Your task to perform on an android device: install app "Paramount+ | Peak Streaming" Image 0: 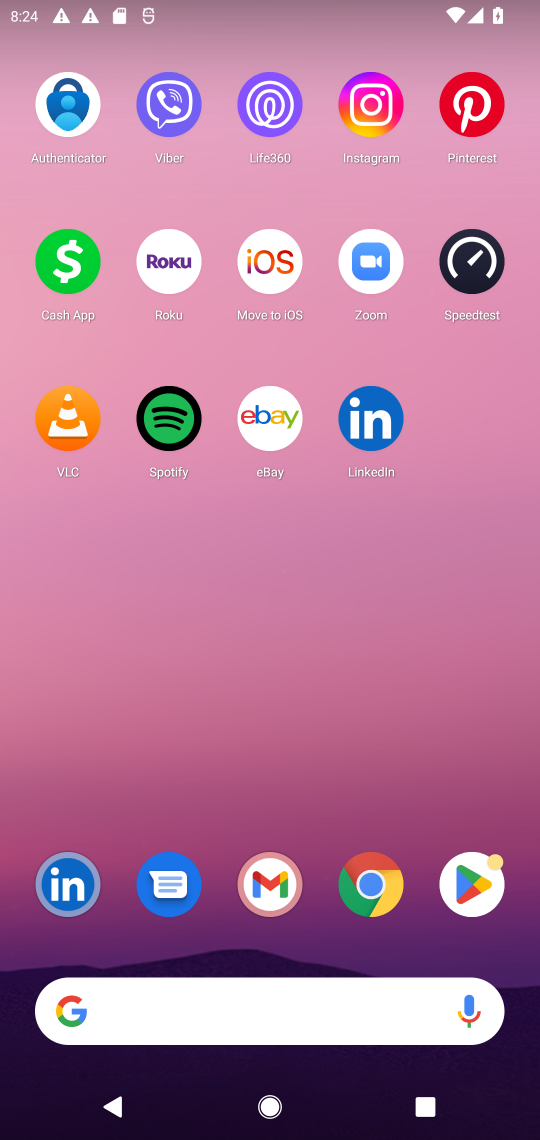
Step 0: press home button
Your task to perform on an android device: install app "Paramount+ | Peak Streaming" Image 1: 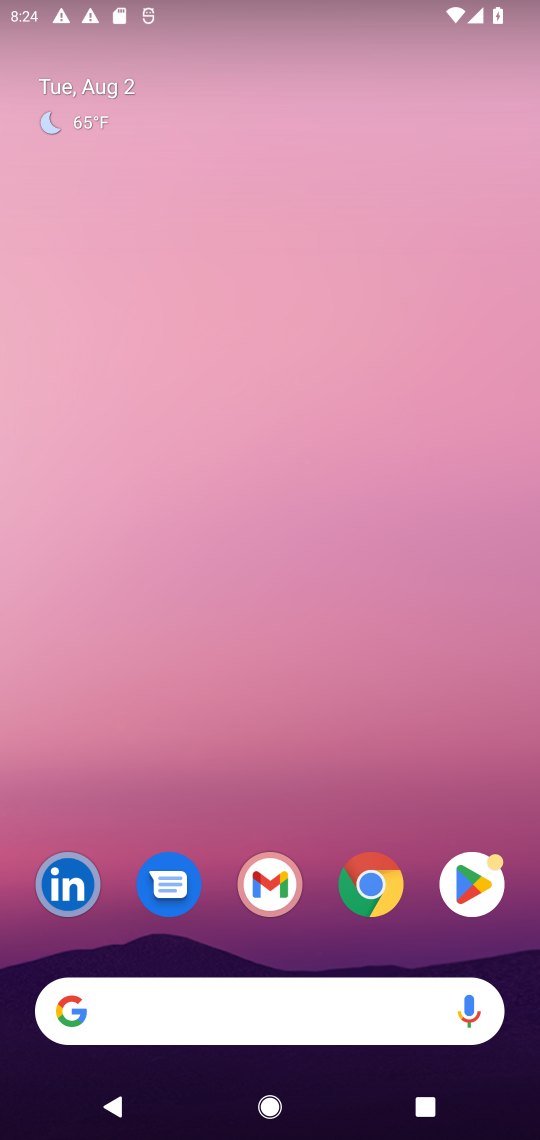
Step 1: click (462, 894)
Your task to perform on an android device: install app "Paramount+ | Peak Streaming" Image 2: 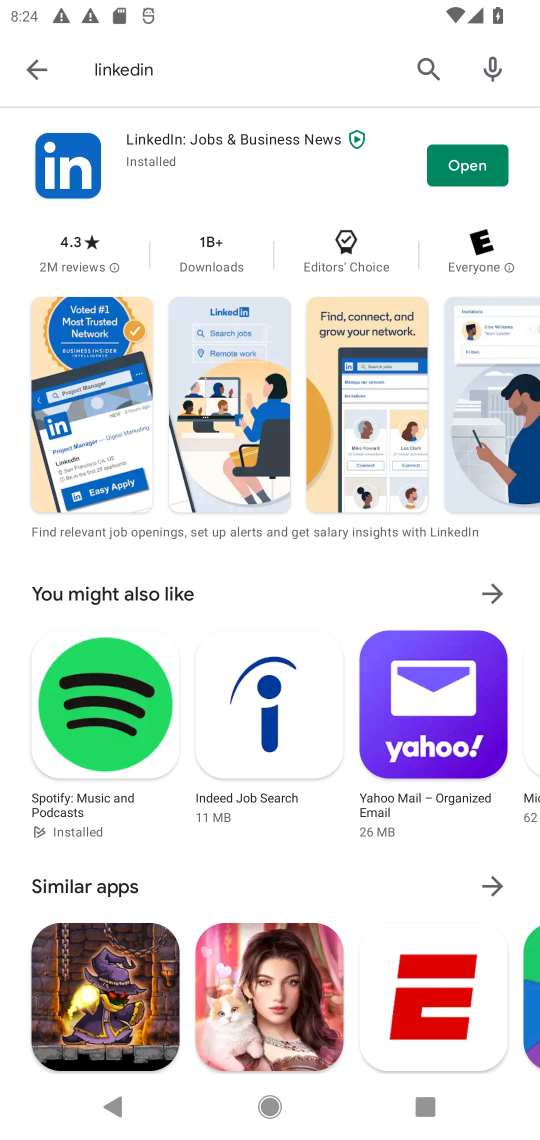
Step 2: click (435, 65)
Your task to perform on an android device: install app "Paramount+ | Peak Streaming" Image 3: 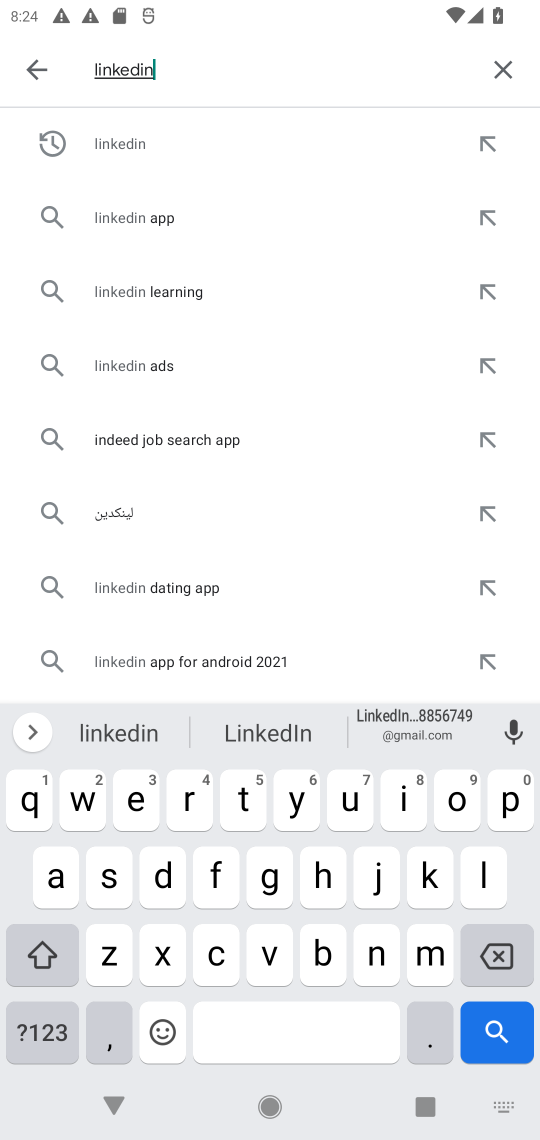
Step 3: click (505, 72)
Your task to perform on an android device: install app "Paramount+ | Peak Streaming" Image 4: 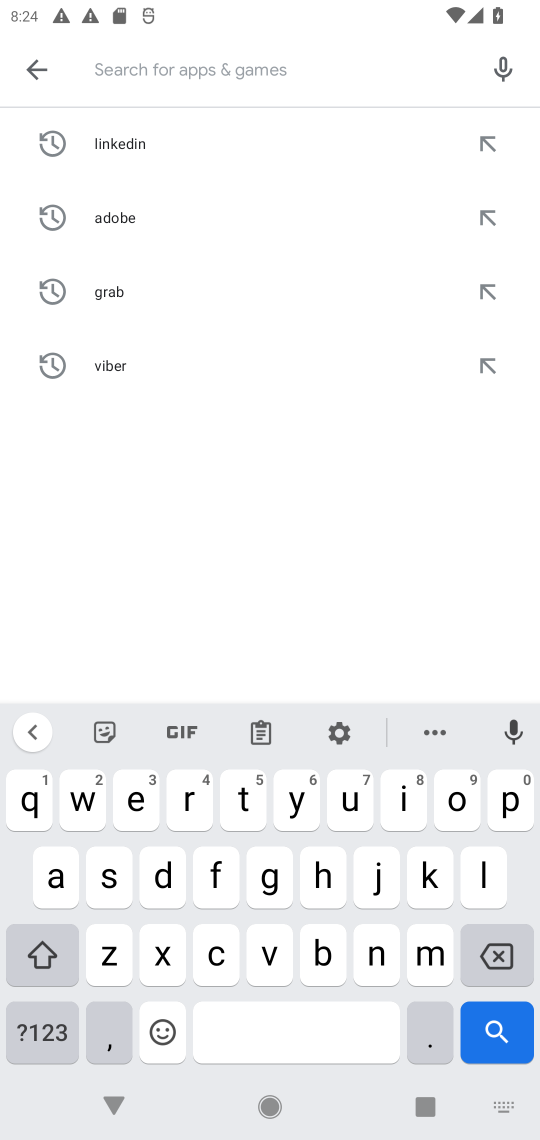
Step 4: click (506, 806)
Your task to perform on an android device: install app "Paramount+ | Peak Streaming" Image 5: 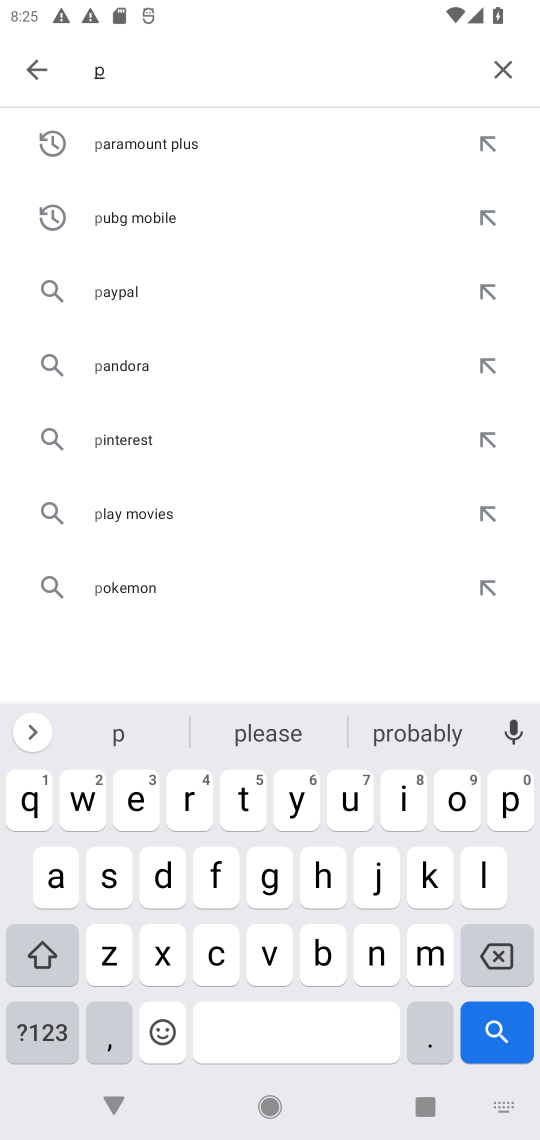
Step 5: click (40, 878)
Your task to perform on an android device: install app "Paramount+ | Peak Streaming" Image 6: 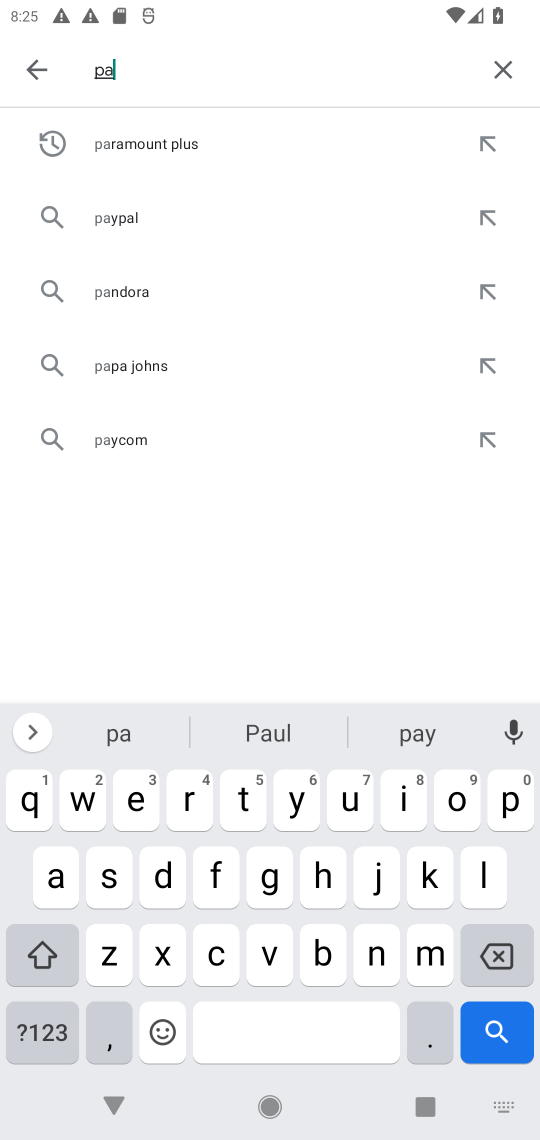
Step 6: click (186, 806)
Your task to perform on an android device: install app "Paramount+ | Peak Streaming" Image 7: 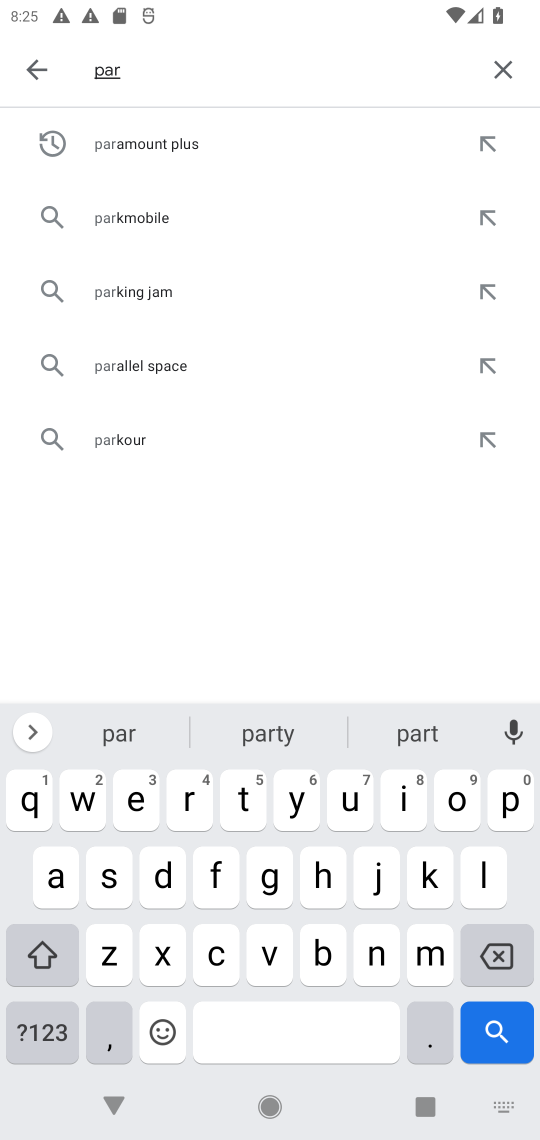
Step 7: click (188, 151)
Your task to perform on an android device: install app "Paramount+ | Peak Streaming" Image 8: 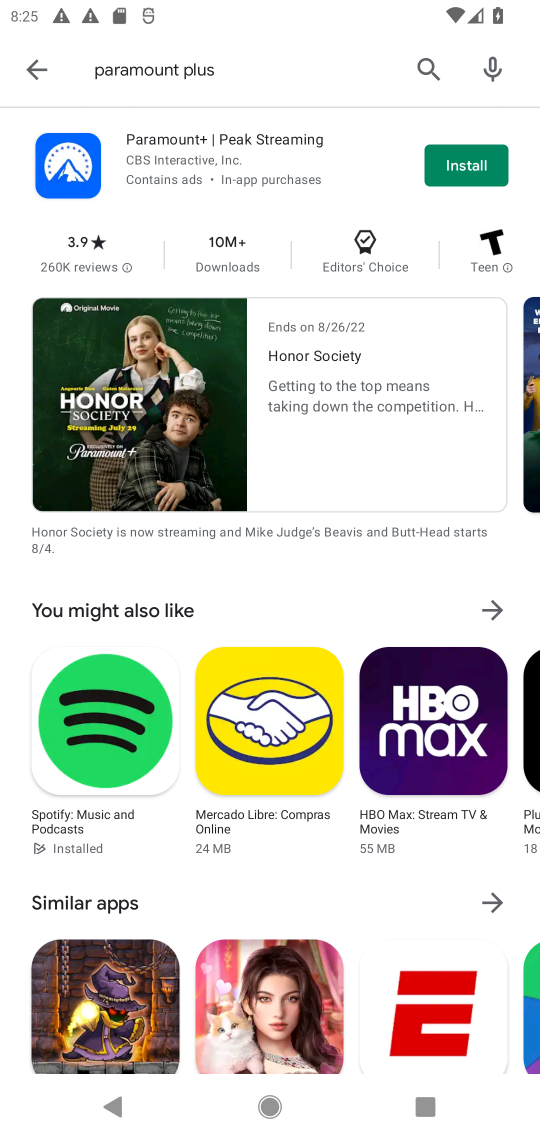
Step 8: click (461, 161)
Your task to perform on an android device: install app "Paramount+ | Peak Streaming" Image 9: 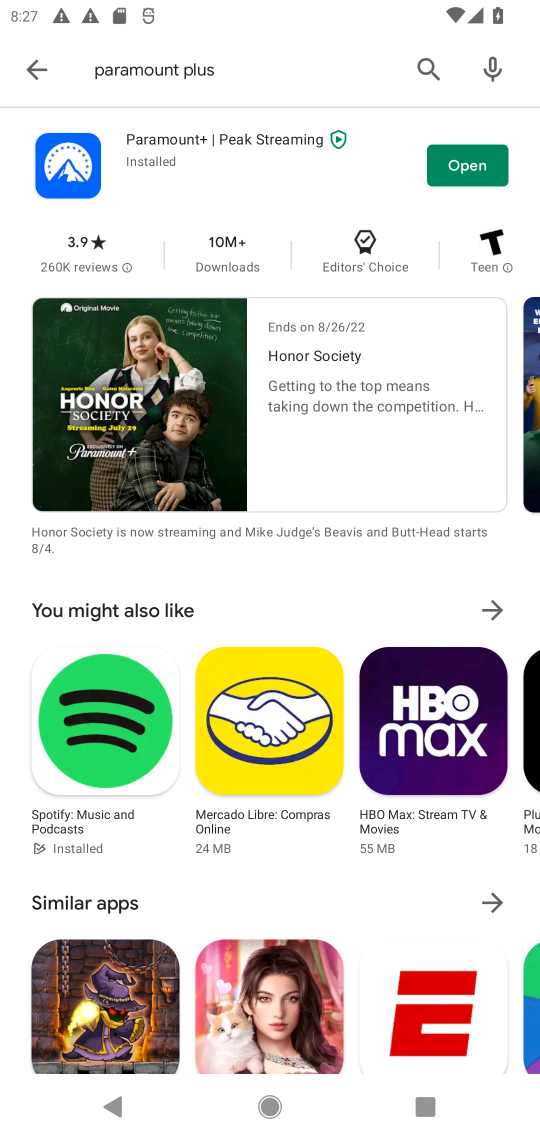
Step 9: task complete